Your task to perform on an android device: Open the stopwatch Image 0: 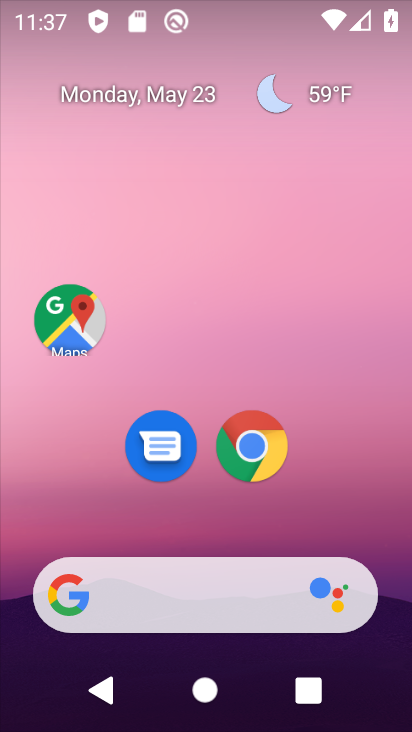
Step 0: drag from (203, 552) to (201, 96)
Your task to perform on an android device: Open the stopwatch Image 1: 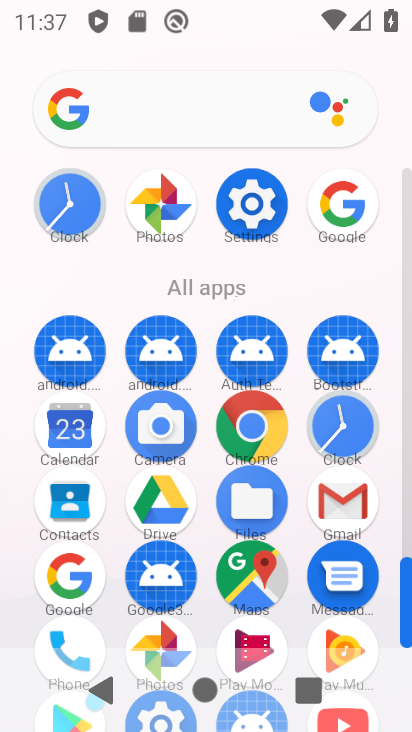
Step 1: click (345, 426)
Your task to perform on an android device: Open the stopwatch Image 2: 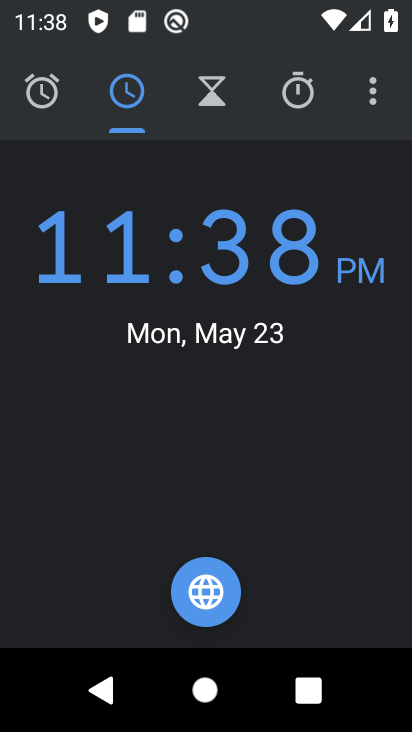
Step 2: click (297, 96)
Your task to perform on an android device: Open the stopwatch Image 3: 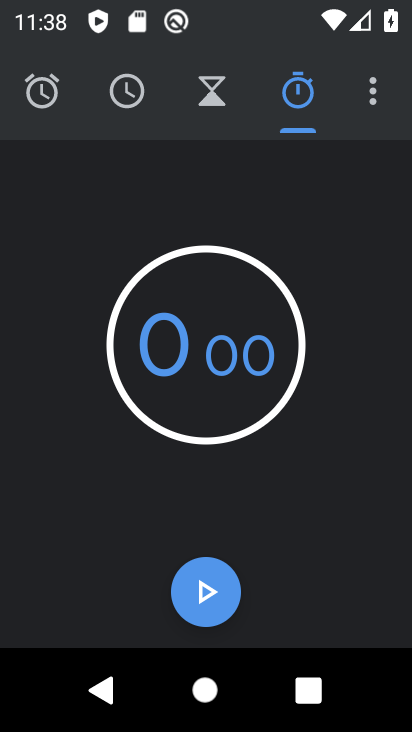
Step 3: click (195, 394)
Your task to perform on an android device: Open the stopwatch Image 4: 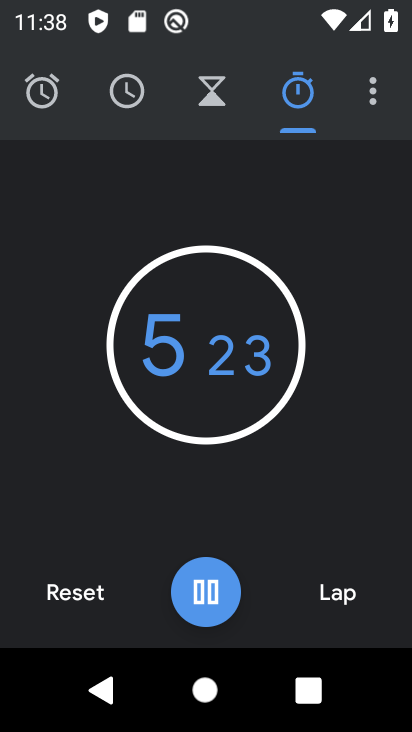
Step 4: click (195, 394)
Your task to perform on an android device: Open the stopwatch Image 5: 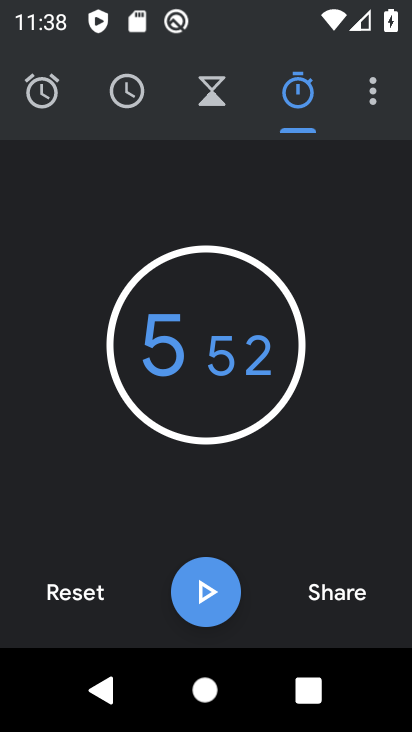
Step 5: task complete